Your task to perform on an android device: turn off airplane mode Image 0: 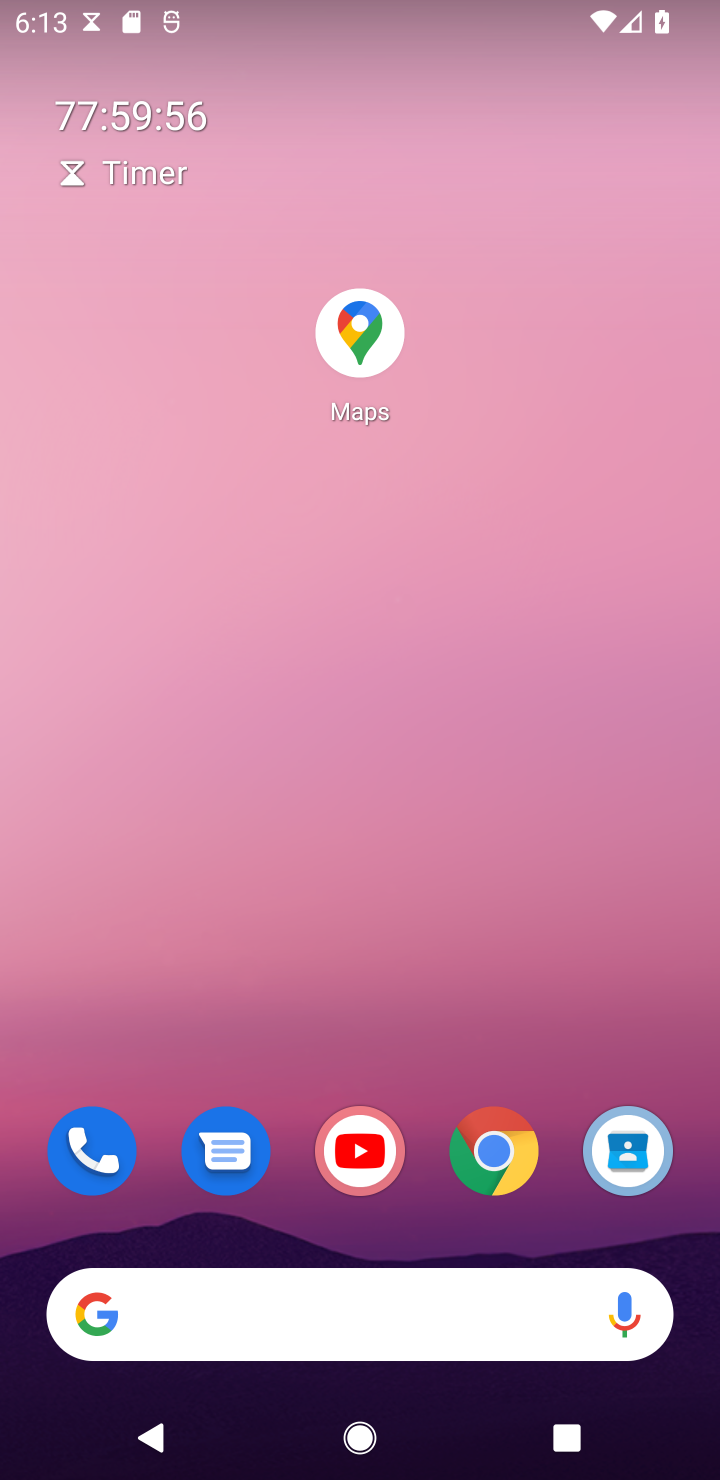
Step 0: drag from (400, 1048) to (444, 693)
Your task to perform on an android device: turn off airplane mode Image 1: 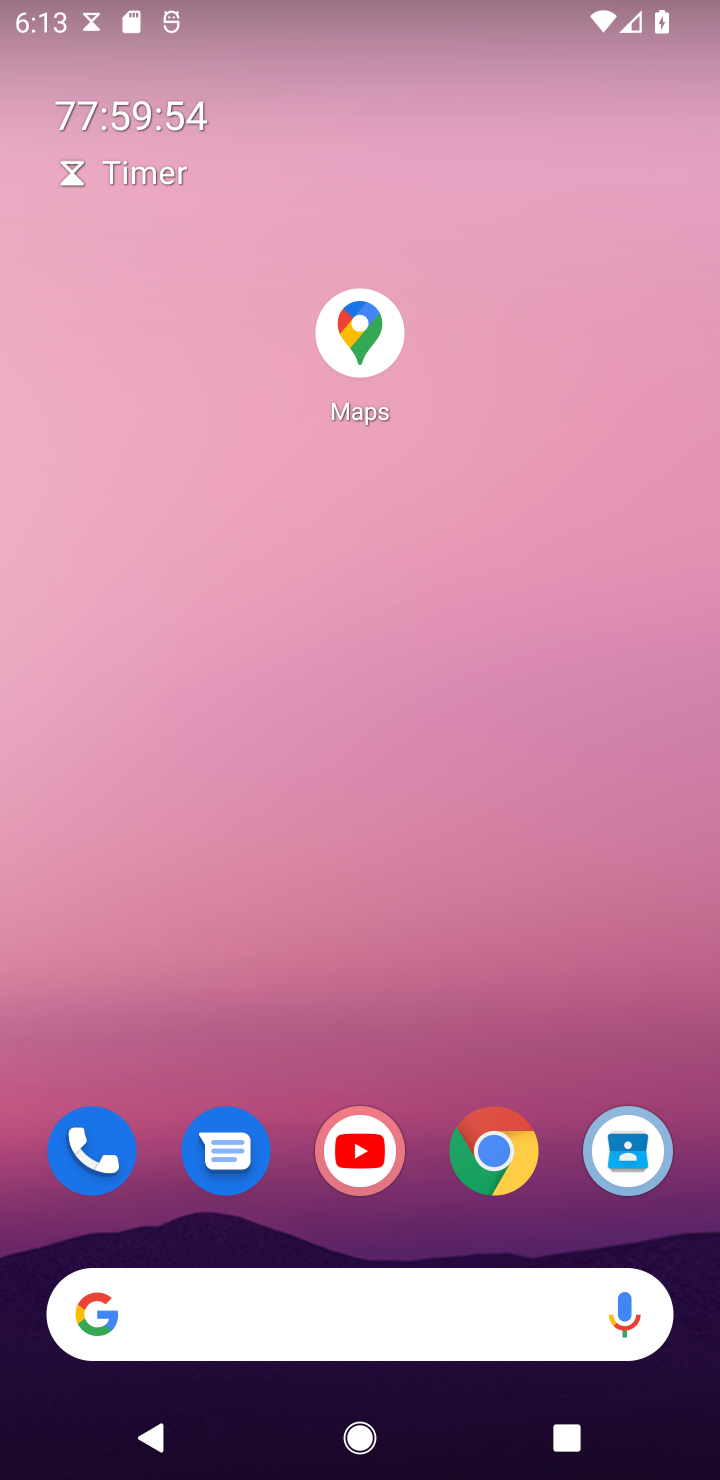
Step 1: drag from (469, 1108) to (583, 730)
Your task to perform on an android device: turn off airplane mode Image 2: 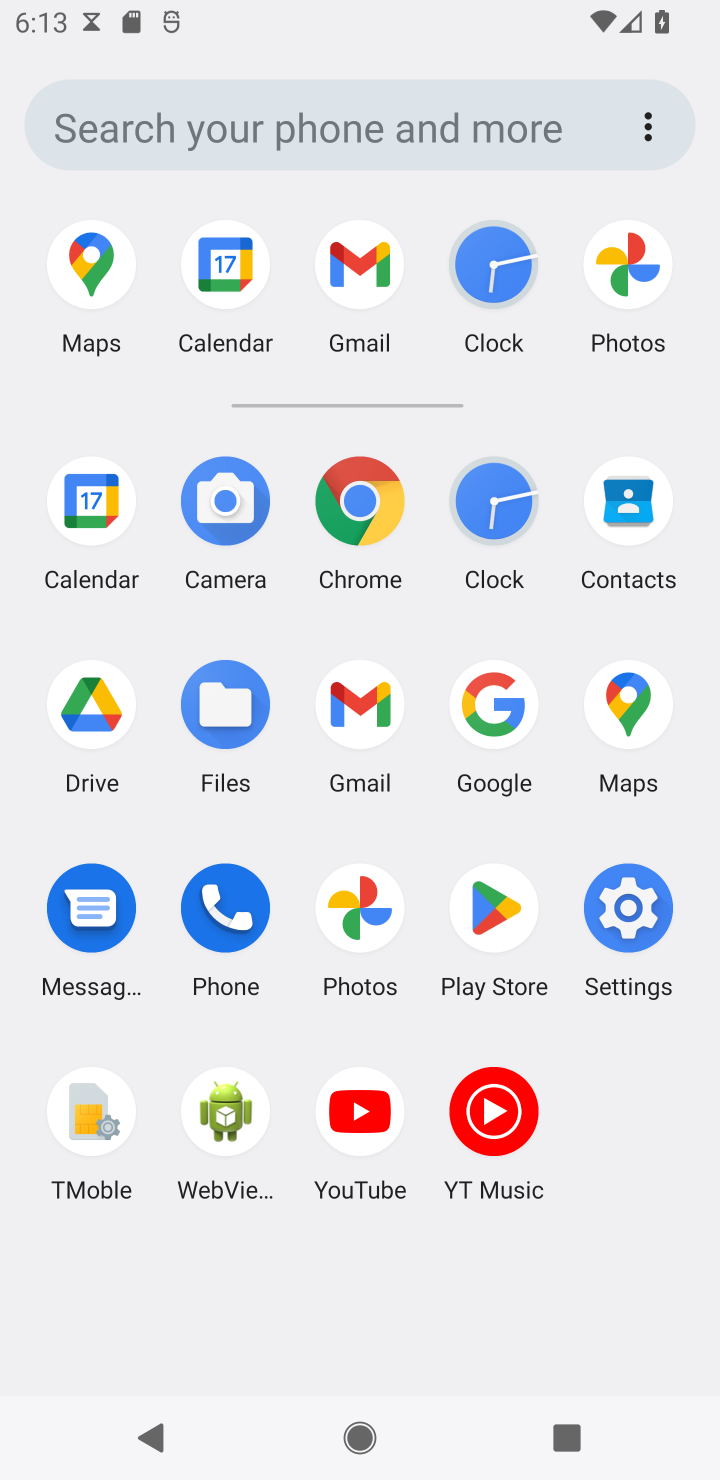
Step 2: click (641, 917)
Your task to perform on an android device: turn off airplane mode Image 3: 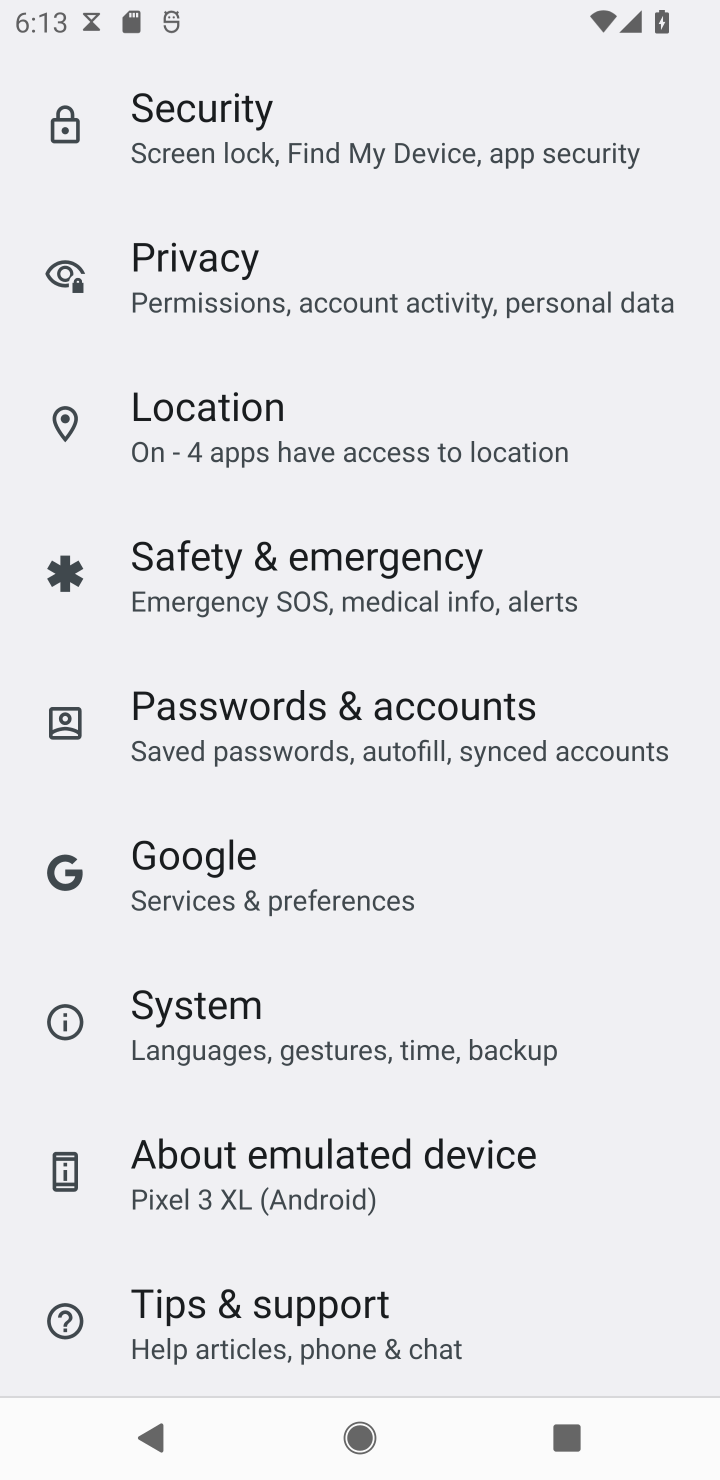
Step 3: drag from (336, 218) to (305, 1181)
Your task to perform on an android device: turn off airplane mode Image 4: 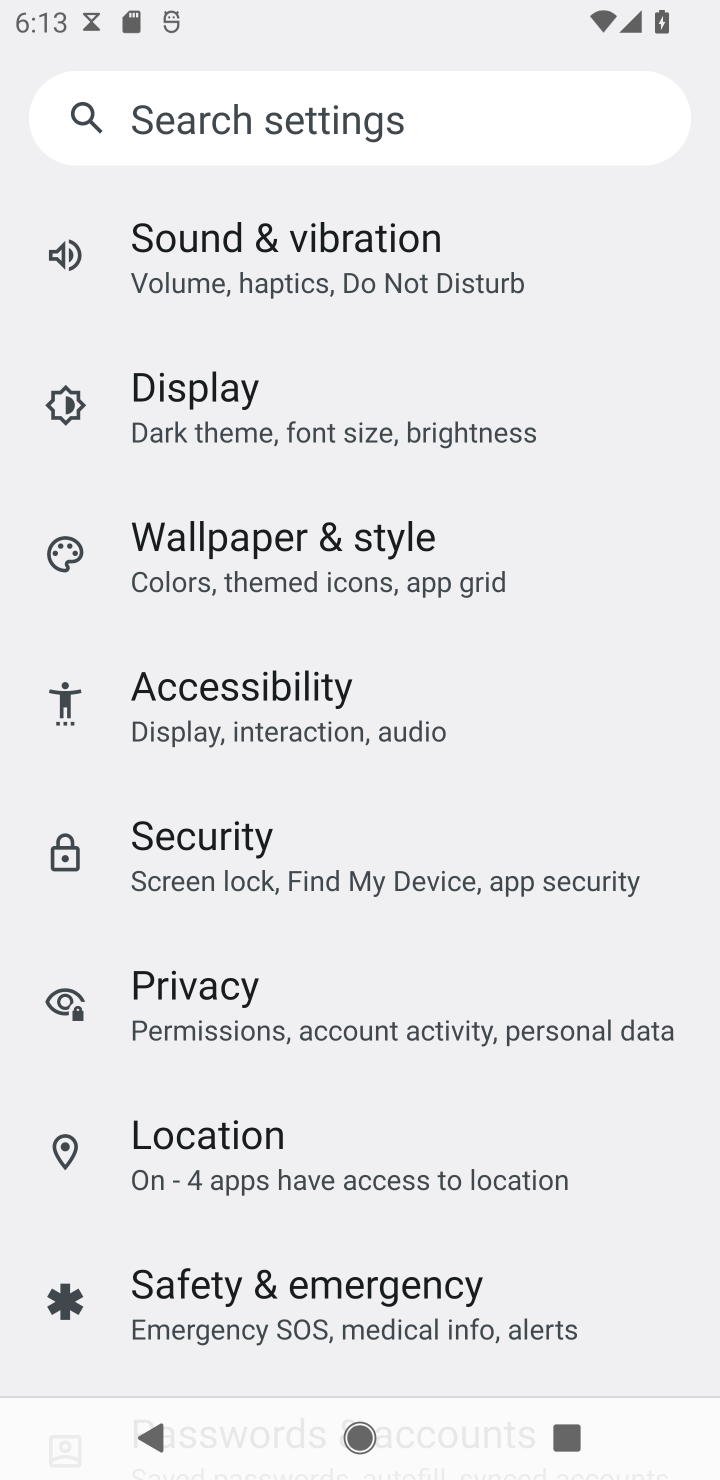
Step 4: drag from (220, 229) to (261, 1354)
Your task to perform on an android device: turn off airplane mode Image 5: 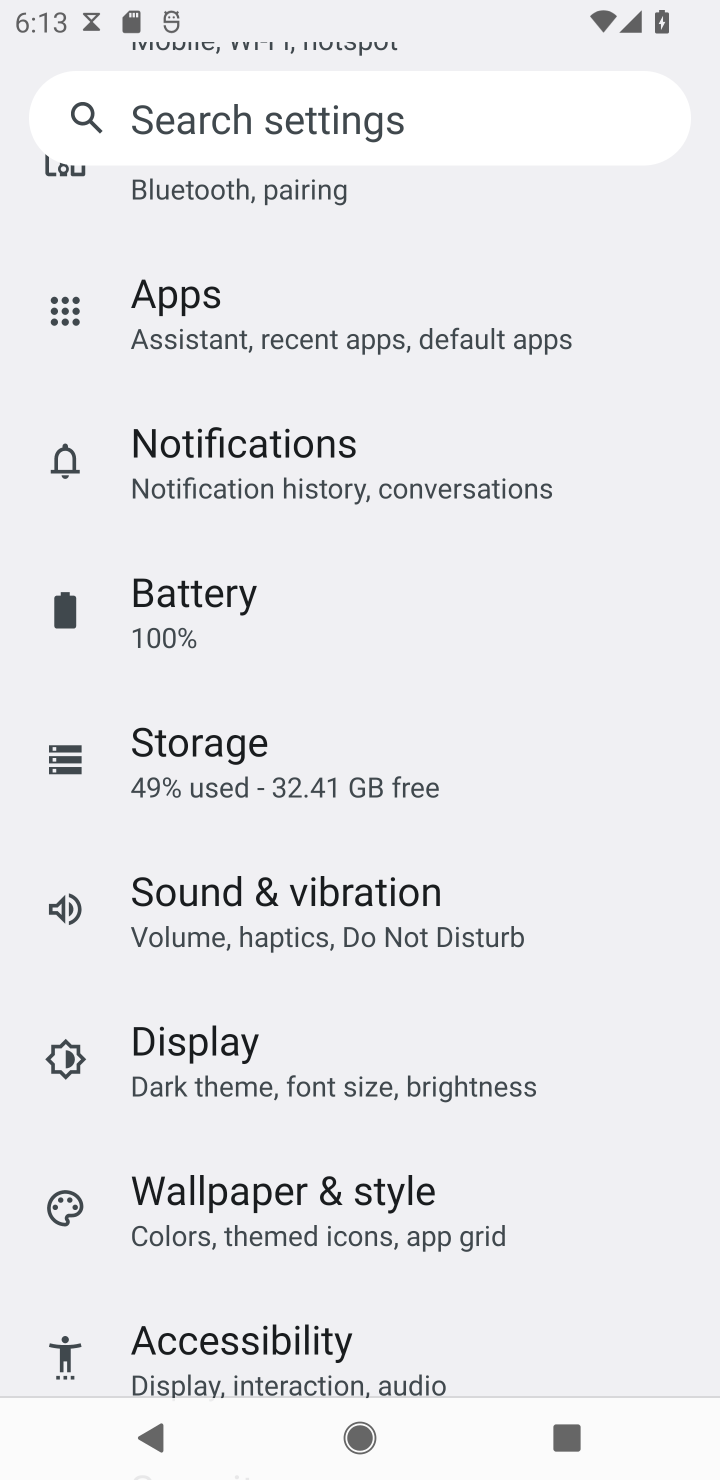
Step 5: drag from (396, 238) to (414, 1429)
Your task to perform on an android device: turn off airplane mode Image 6: 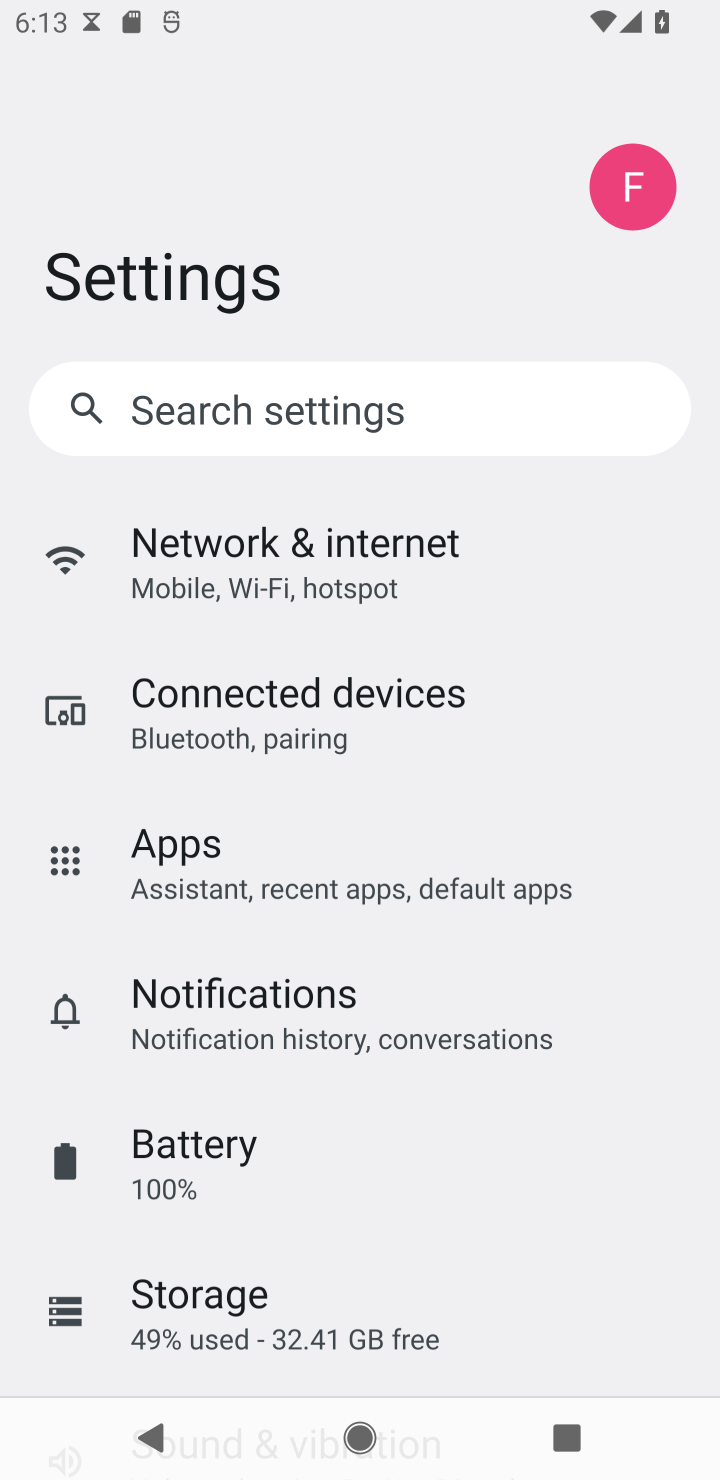
Step 6: click (299, 542)
Your task to perform on an android device: turn off airplane mode Image 7: 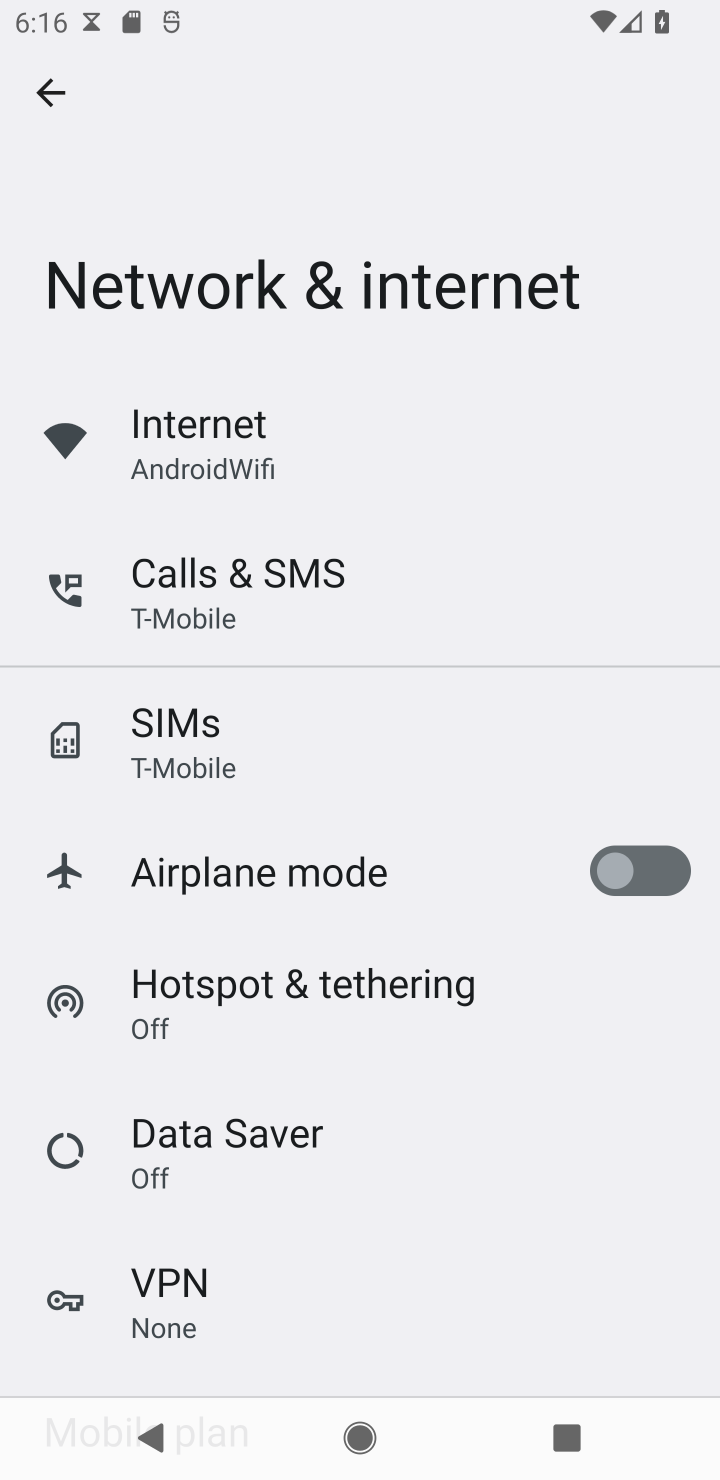
Step 7: task complete